Your task to perform on an android device: turn pop-ups off in chrome Image 0: 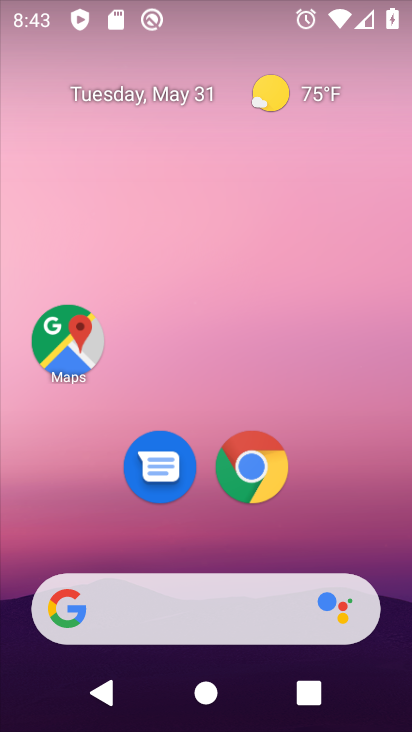
Step 0: click (406, 150)
Your task to perform on an android device: turn pop-ups off in chrome Image 1: 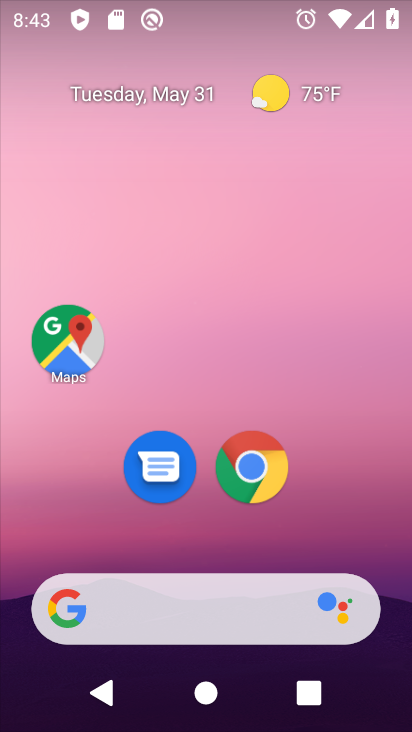
Step 1: drag from (224, 467) to (23, 1)
Your task to perform on an android device: turn pop-ups off in chrome Image 2: 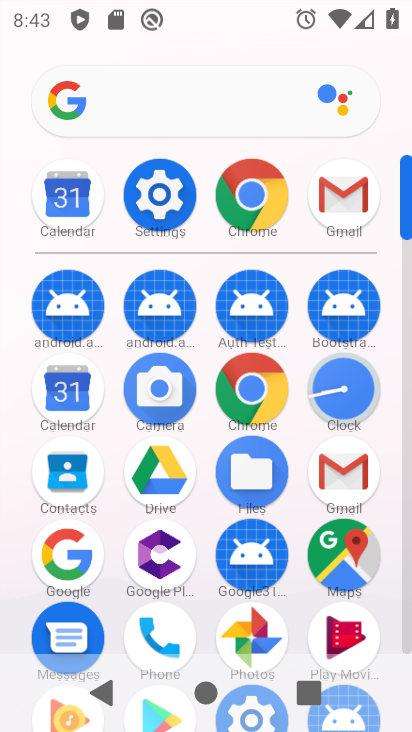
Step 2: click (252, 384)
Your task to perform on an android device: turn pop-ups off in chrome Image 3: 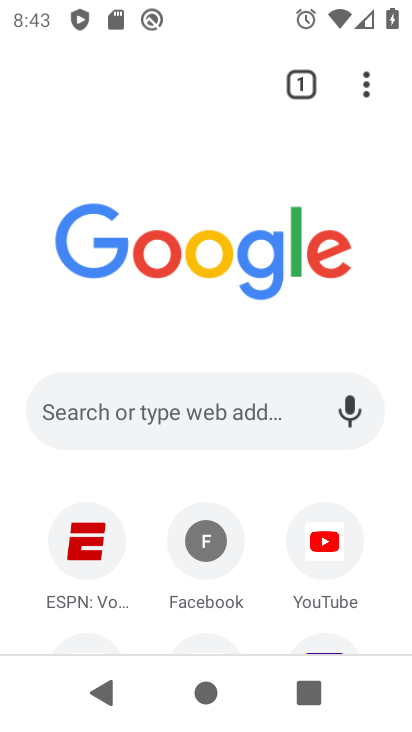
Step 3: drag from (262, 510) to (294, 77)
Your task to perform on an android device: turn pop-ups off in chrome Image 4: 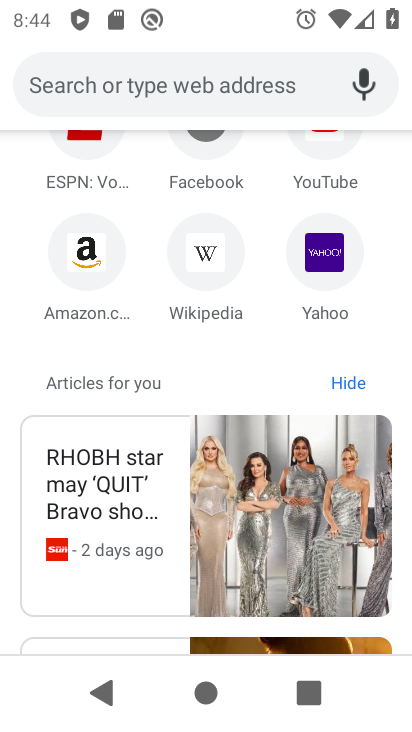
Step 4: drag from (271, 183) to (338, 662)
Your task to perform on an android device: turn pop-ups off in chrome Image 5: 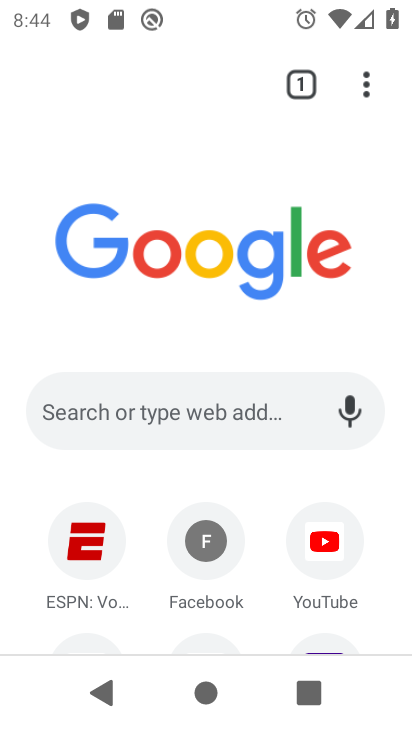
Step 5: drag from (377, 83) to (143, 506)
Your task to perform on an android device: turn pop-ups off in chrome Image 6: 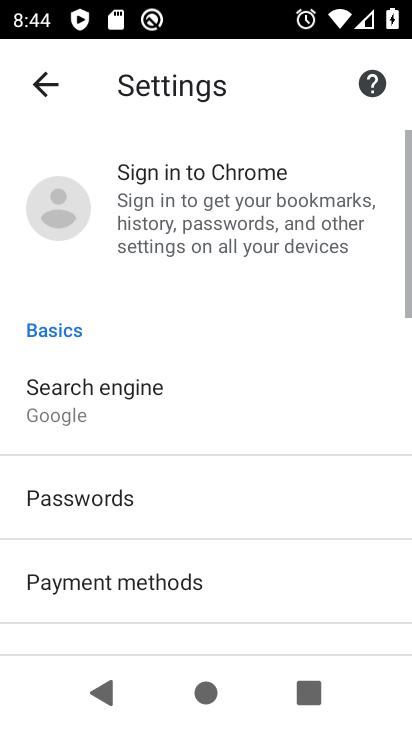
Step 6: drag from (242, 523) to (330, 144)
Your task to perform on an android device: turn pop-ups off in chrome Image 7: 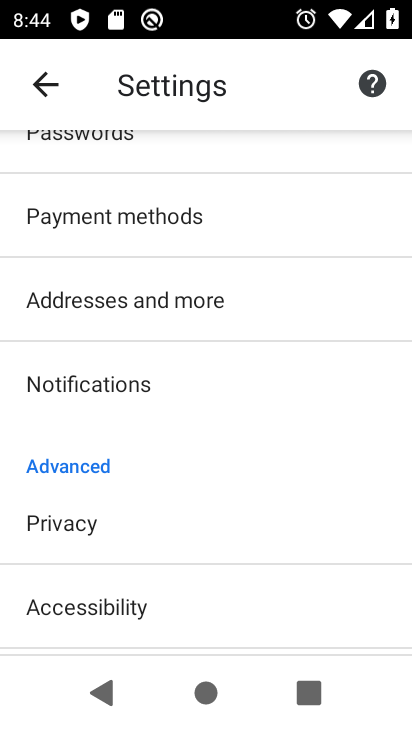
Step 7: drag from (225, 637) to (348, 332)
Your task to perform on an android device: turn pop-ups off in chrome Image 8: 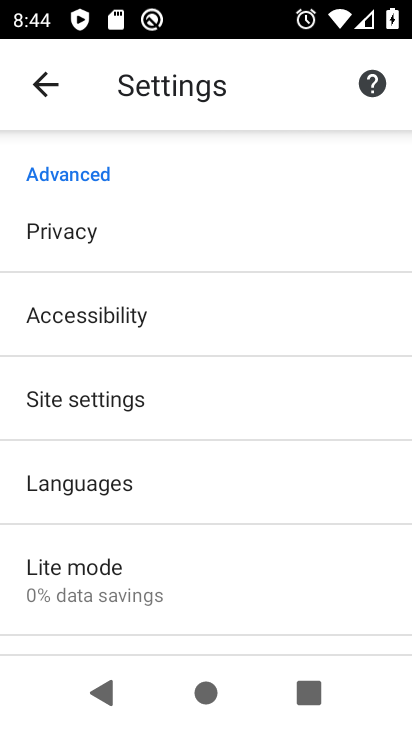
Step 8: drag from (273, 318) to (192, 588)
Your task to perform on an android device: turn pop-ups off in chrome Image 9: 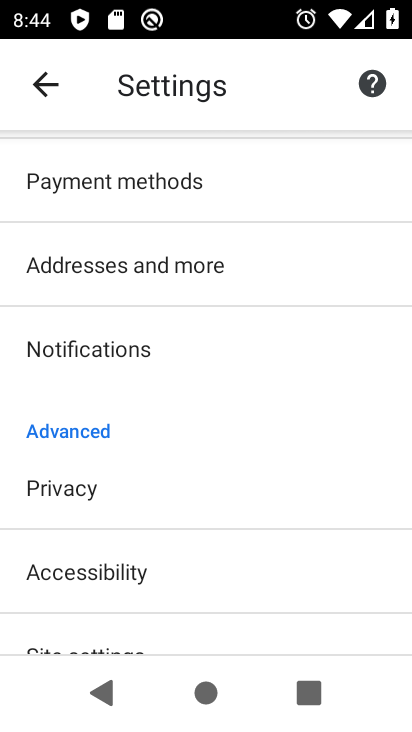
Step 9: drag from (143, 631) to (267, 378)
Your task to perform on an android device: turn pop-ups off in chrome Image 10: 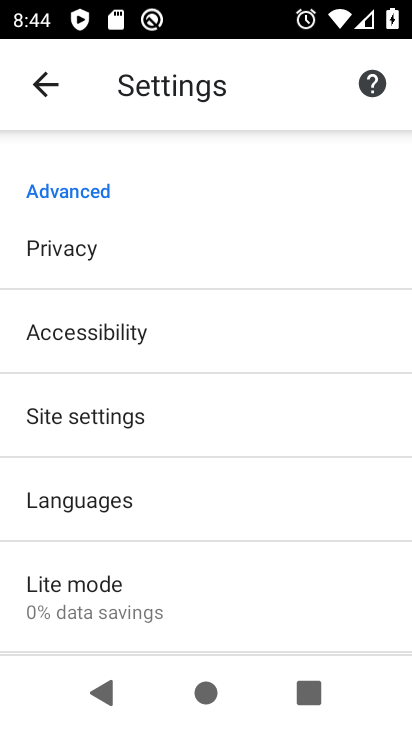
Step 10: click (130, 402)
Your task to perform on an android device: turn pop-ups off in chrome Image 11: 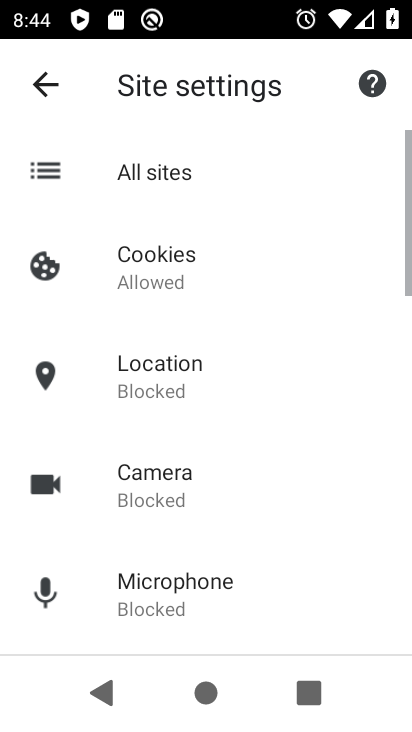
Step 11: drag from (254, 597) to (299, 378)
Your task to perform on an android device: turn pop-ups off in chrome Image 12: 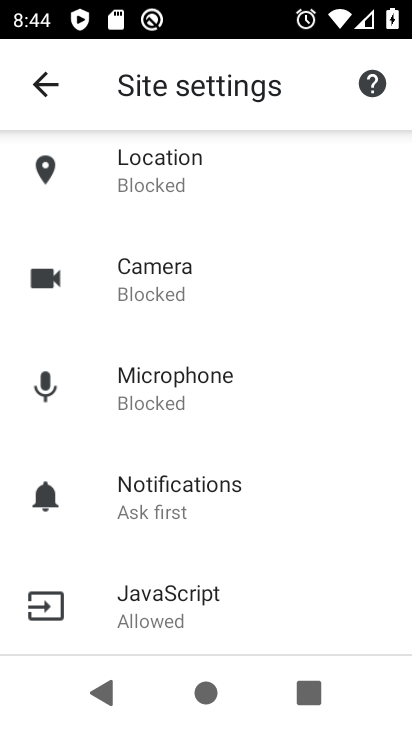
Step 12: drag from (189, 595) to (265, 234)
Your task to perform on an android device: turn pop-ups off in chrome Image 13: 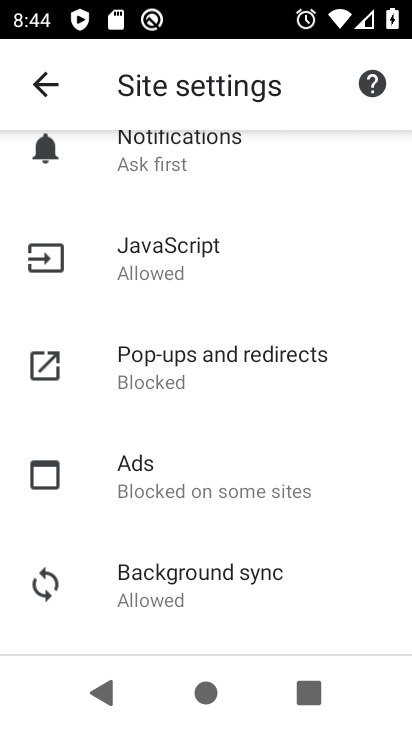
Step 13: click (201, 386)
Your task to perform on an android device: turn pop-ups off in chrome Image 14: 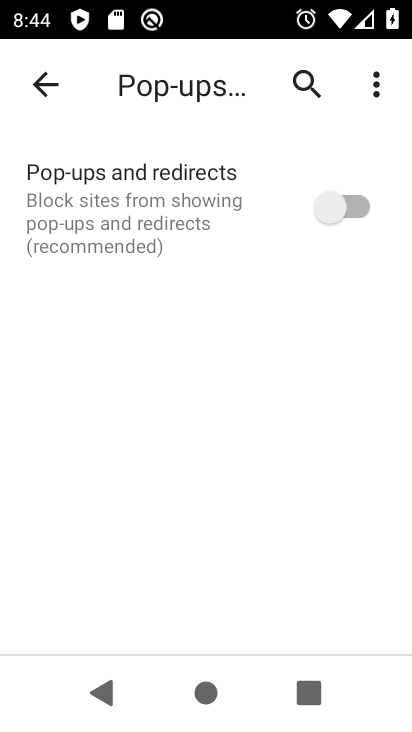
Step 14: task complete